Your task to perform on an android device: turn off notifications in google photos Image 0: 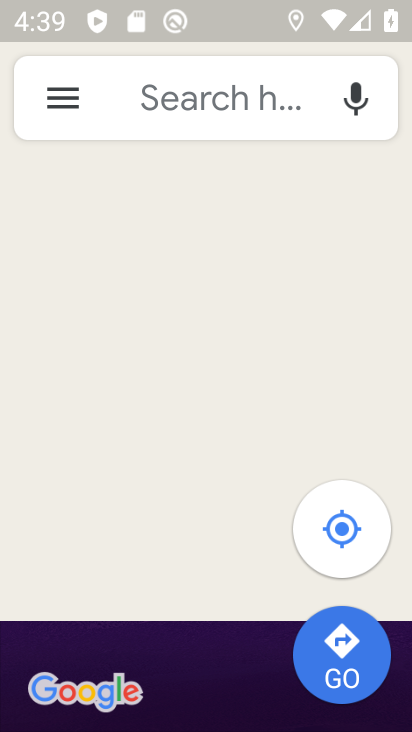
Step 0: drag from (277, 682) to (175, 104)
Your task to perform on an android device: turn off notifications in google photos Image 1: 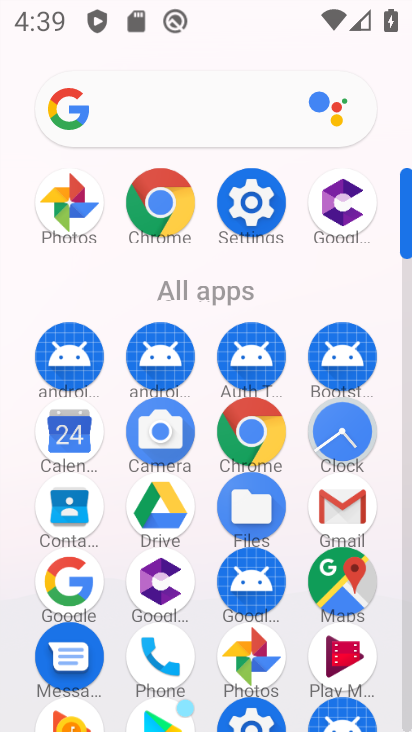
Step 1: click (263, 659)
Your task to perform on an android device: turn off notifications in google photos Image 2: 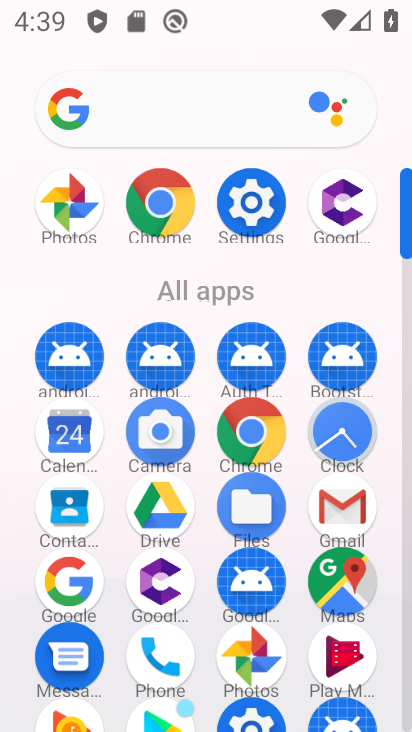
Step 2: click (263, 659)
Your task to perform on an android device: turn off notifications in google photos Image 3: 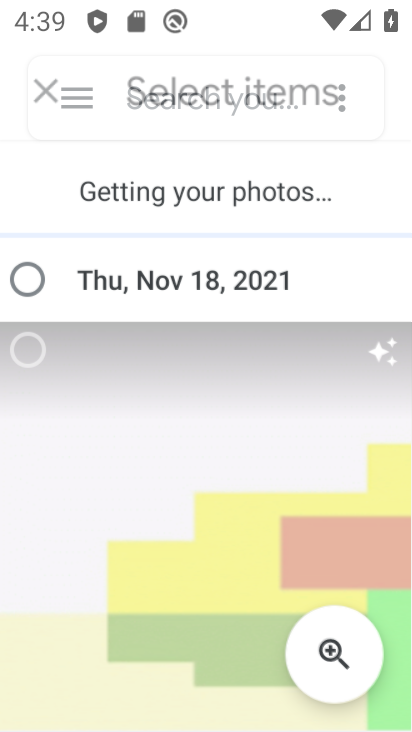
Step 3: click (263, 660)
Your task to perform on an android device: turn off notifications in google photos Image 4: 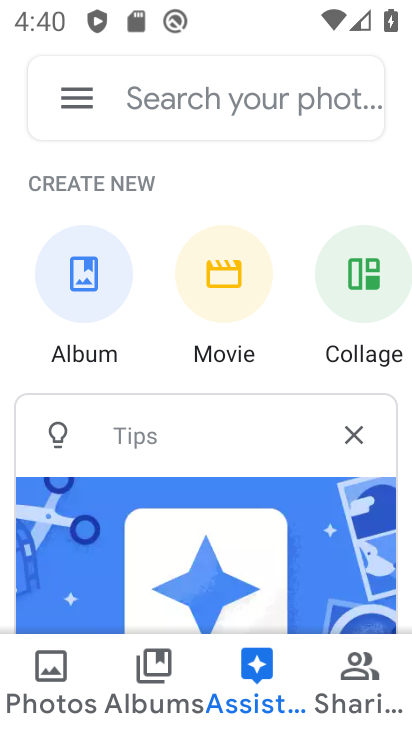
Step 4: drag from (263, 509) to (230, 183)
Your task to perform on an android device: turn off notifications in google photos Image 5: 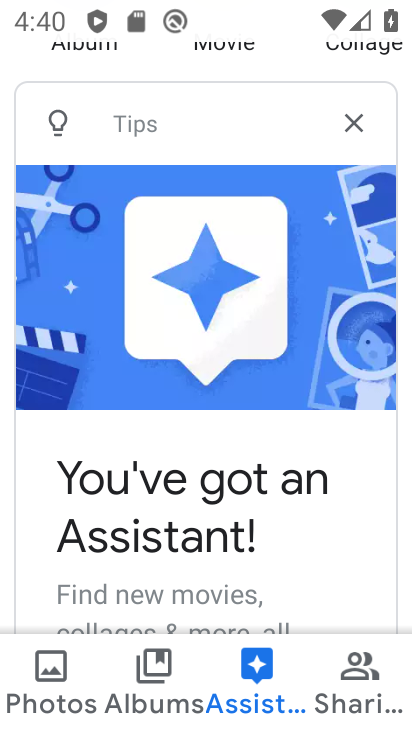
Step 5: drag from (213, 302) to (165, 134)
Your task to perform on an android device: turn off notifications in google photos Image 6: 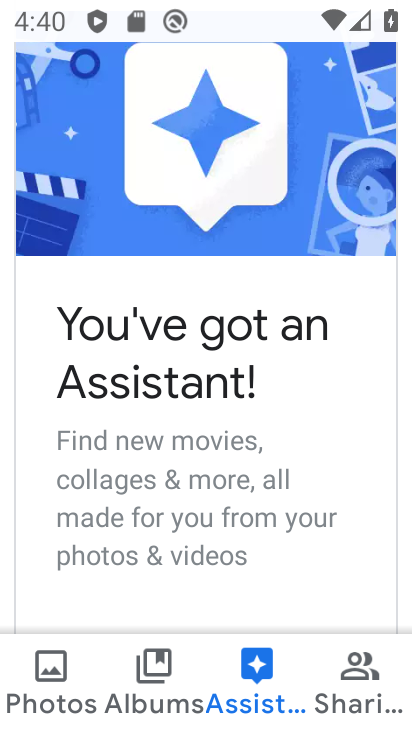
Step 6: drag from (206, 384) to (201, 66)
Your task to perform on an android device: turn off notifications in google photos Image 7: 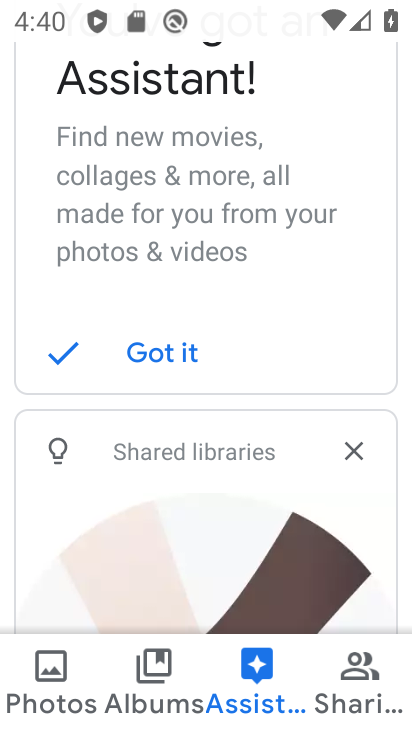
Step 7: drag from (128, 248) to (153, 529)
Your task to perform on an android device: turn off notifications in google photos Image 8: 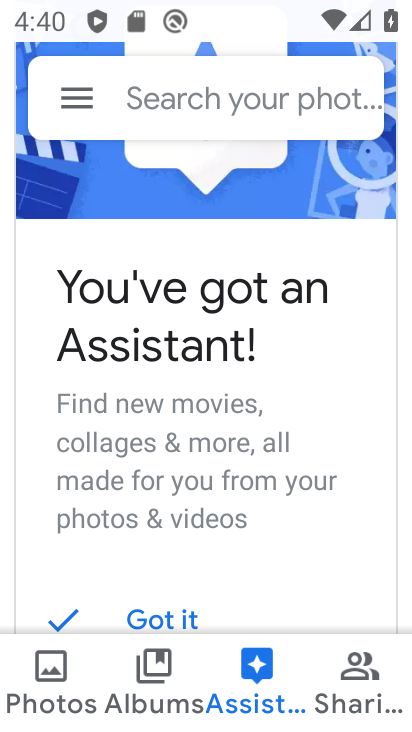
Step 8: click (184, 496)
Your task to perform on an android device: turn off notifications in google photos Image 9: 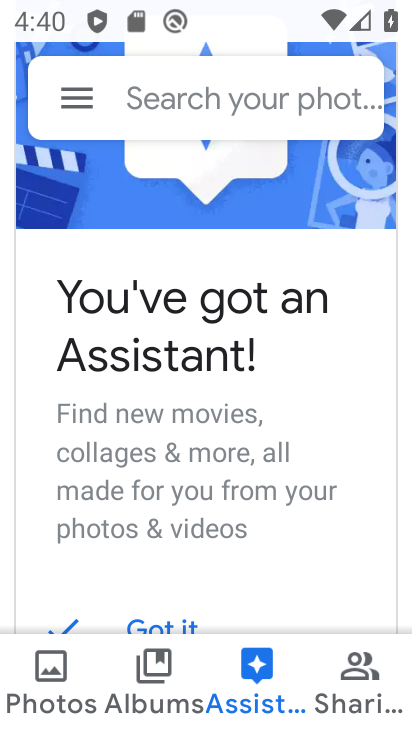
Step 9: drag from (198, 302) to (182, 567)
Your task to perform on an android device: turn off notifications in google photos Image 10: 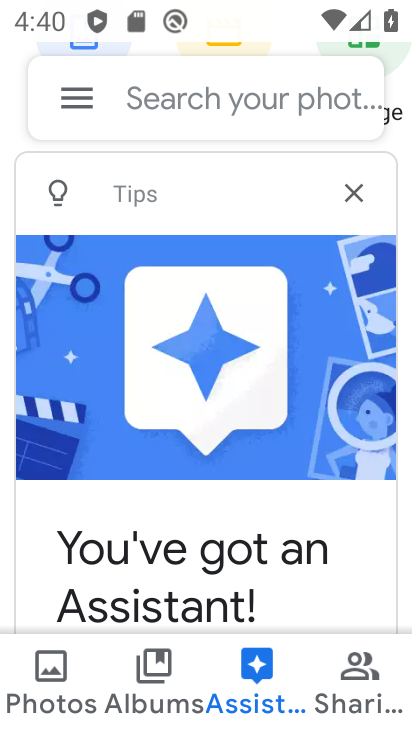
Step 10: drag from (226, 545) to (211, 294)
Your task to perform on an android device: turn off notifications in google photos Image 11: 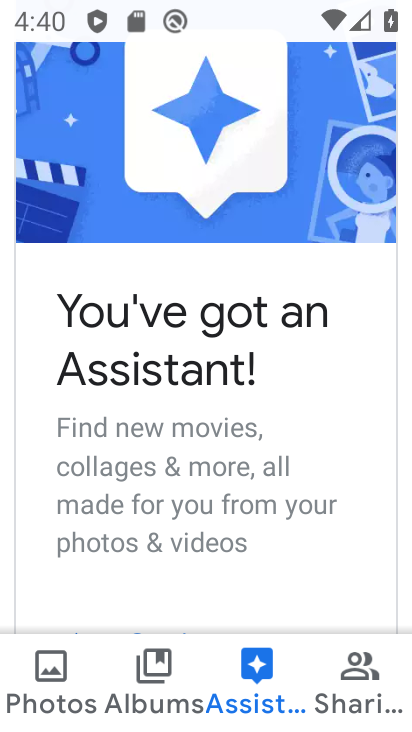
Step 11: drag from (189, 502) to (158, 208)
Your task to perform on an android device: turn off notifications in google photos Image 12: 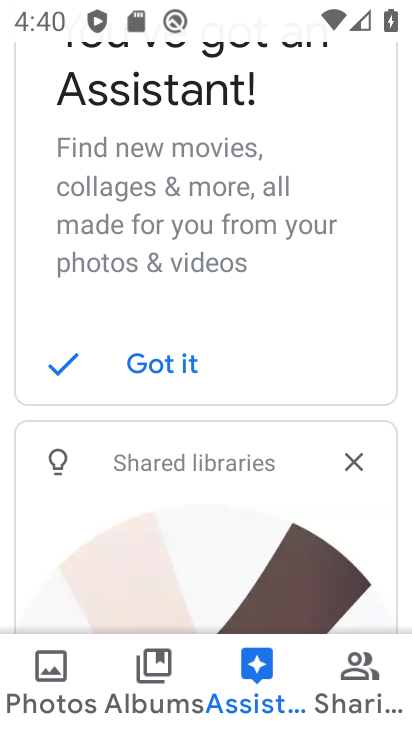
Step 12: drag from (199, 481) to (216, 194)
Your task to perform on an android device: turn off notifications in google photos Image 13: 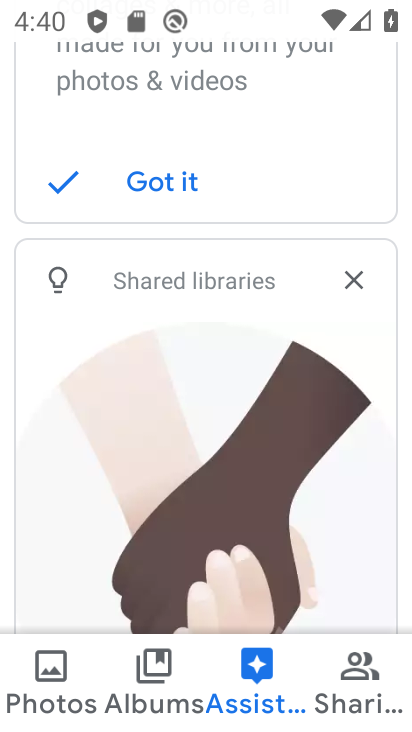
Step 13: drag from (209, 408) to (229, 168)
Your task to perform on an android device: turn off notifications in google photos Image 14: 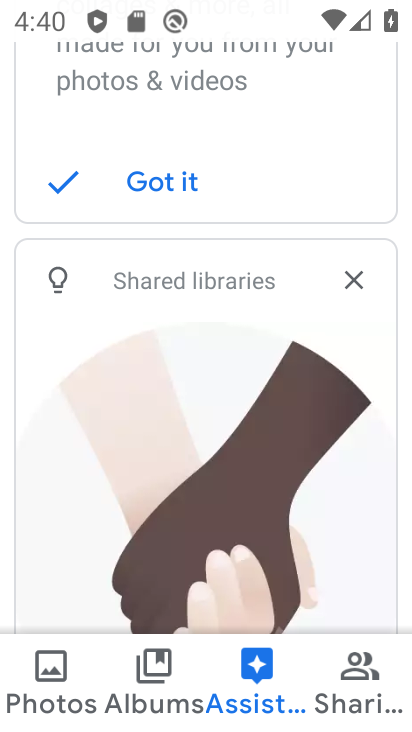
Step 14: click (185, 149)
Your task to perform on an android device: turn off notifications in google photos Image 15: 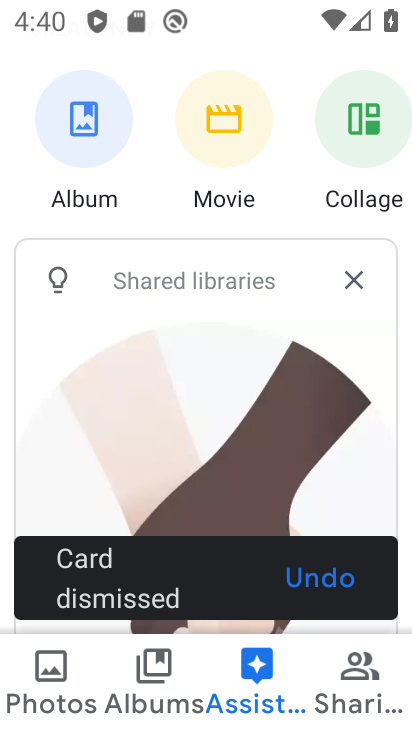
Step 15: drag from (148, 168) to (228, 483)
Your task to perform on an android device: turn off notifications in google photos Image 16: 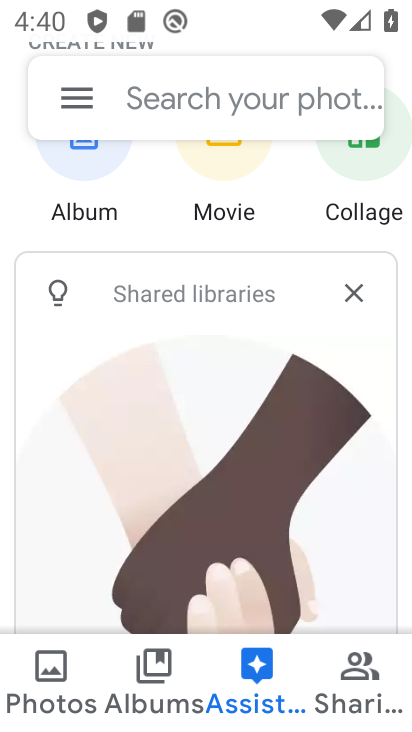
Step 16: drag from (70, 101) to (101, 213)
Your task to perform on an android device: turn off notifications in google photos Image 17: 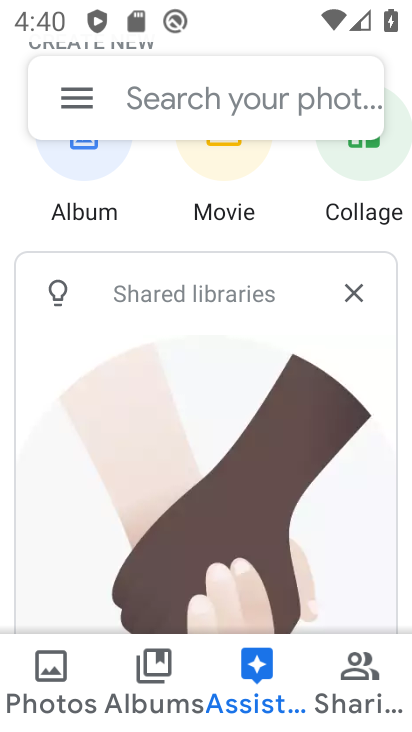
Step 17: click (73, 99)
Your task to perform on an android device: turn off notifications in google photos Image 18: 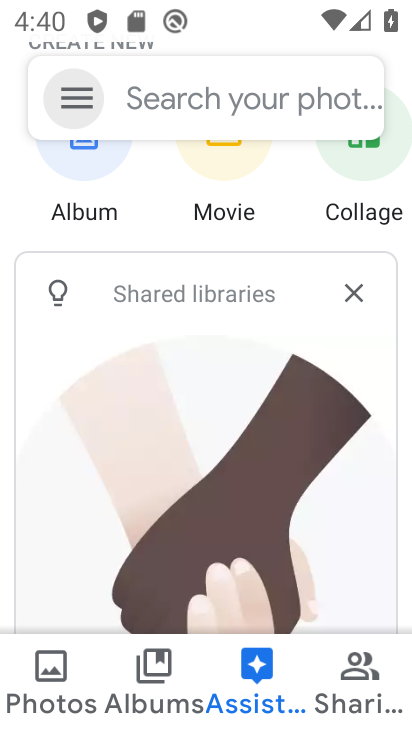
Step 18: click (73, 99)
Your task to perform on an android device: turn off notifications in google photos Image 19: 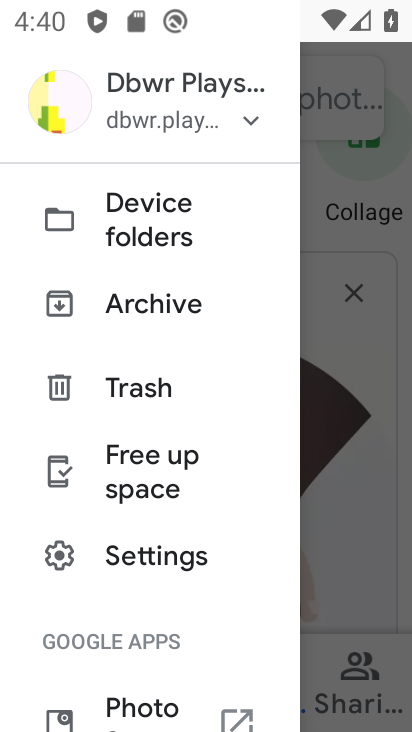
Step 19: click (78, 101)
Your task to perform on an android device: turn off notifications in google photos Image 20: 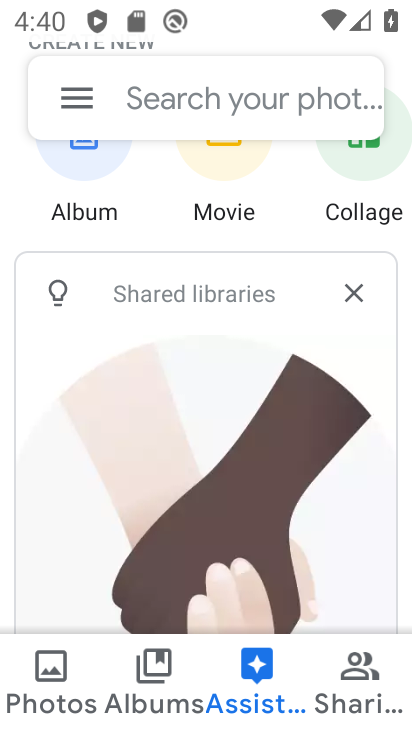
Step 20: click (65, 90)
Your task to perform on an android device: turn off notifications in google photos Image 21: 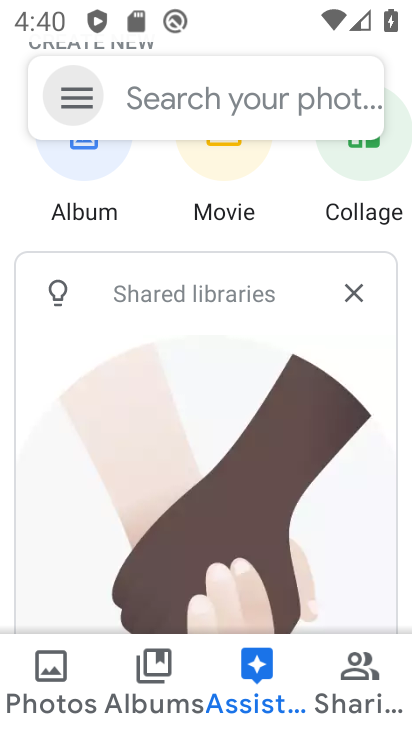
Step 21: drag from (65, 90) to (147, 550)
Your task to perform on an android device: turn off notifications in google photos Image 22: 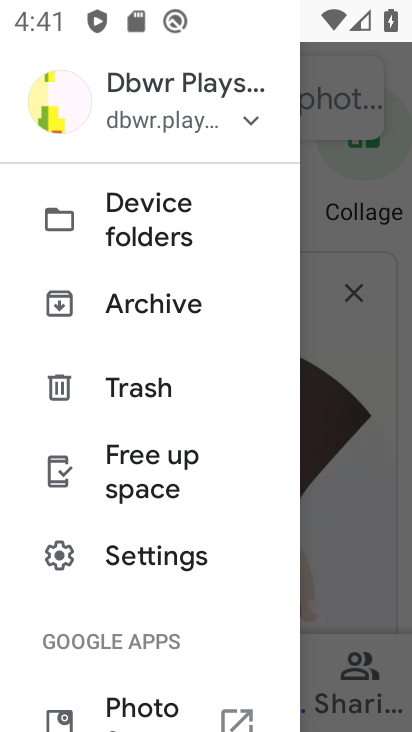
Step 22: click (118, 555)
Your task to perform on an android device: turn off notifications in google photos Image 23: 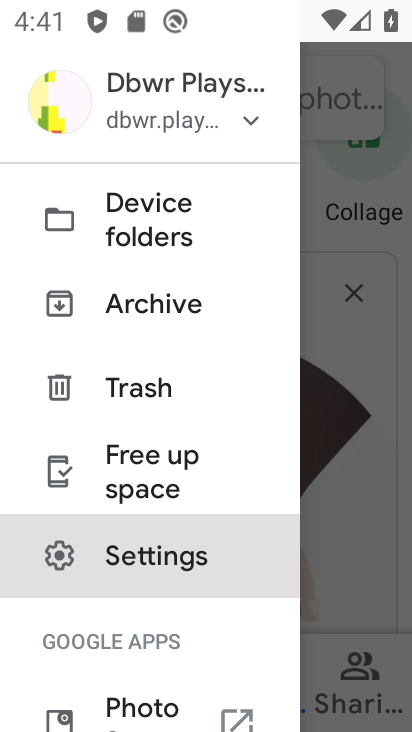
Step 23: click (129, 552)
Your task to perform on an android device: turn off notifications in google photos Image 24: 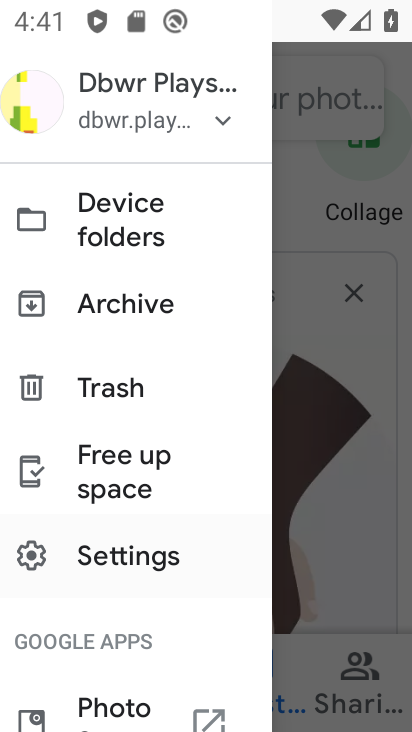
Step 24: click (133, 552)
Your task to perform on an android device: turn off notifications in google photos Image 25: 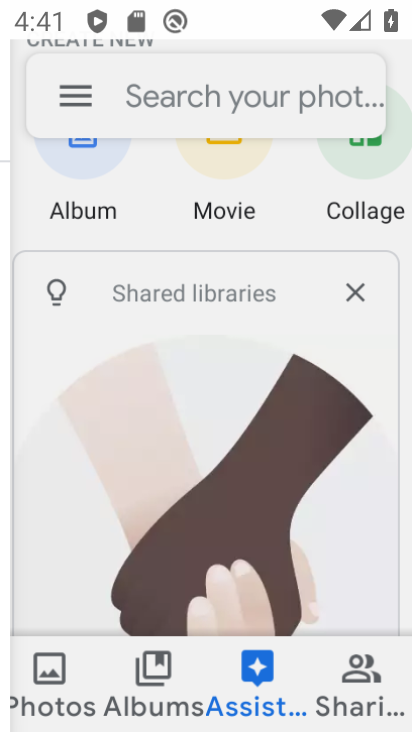
Step 25: click (137, 552)
Your task to perform on an android device: turn off notifications in google photos Image 26: 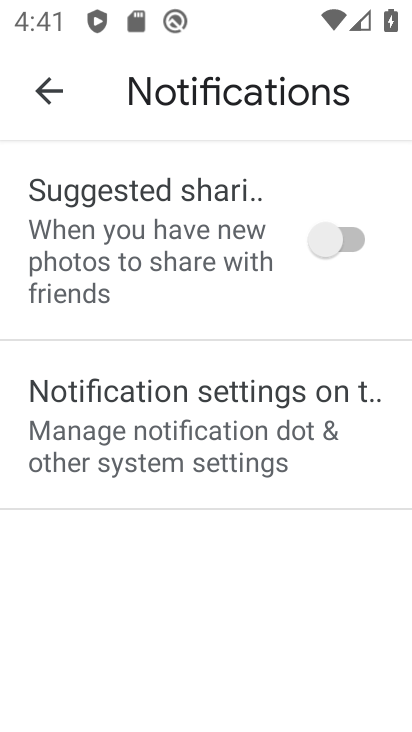
Step 26: click (46, 98)
Your task to perform on an android device: turn off notifications in google photos Image 27: 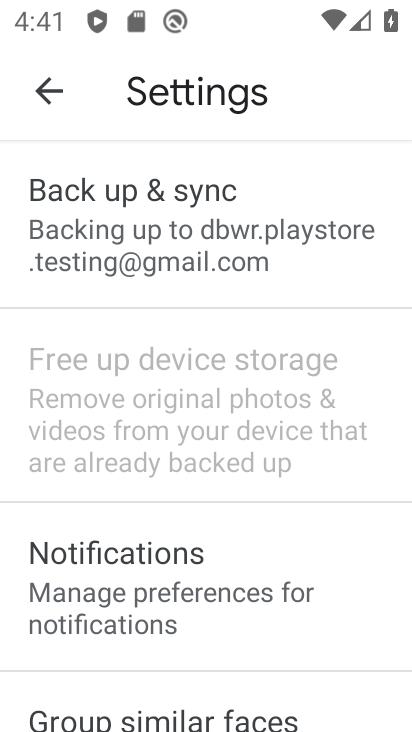
Step 27: drag from (168, 473) to (168, 272)
Your task to perform on an android device: turn off notifications in google photos Image 28: 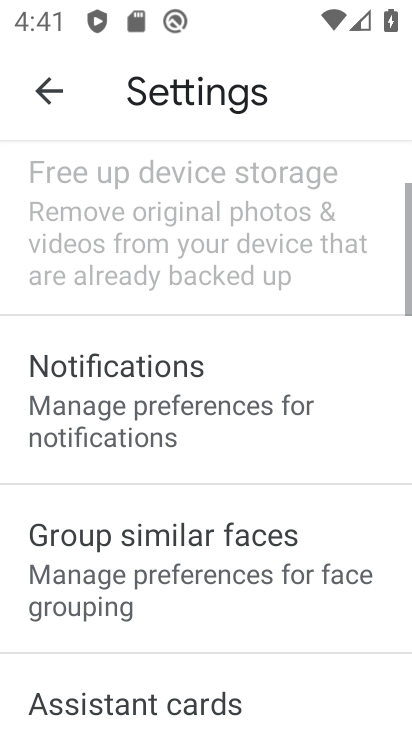
Step 28: drag from (178, 475) to (214, 216)
Your task to perform on an android device: turn off notifications in google photos Image 29: 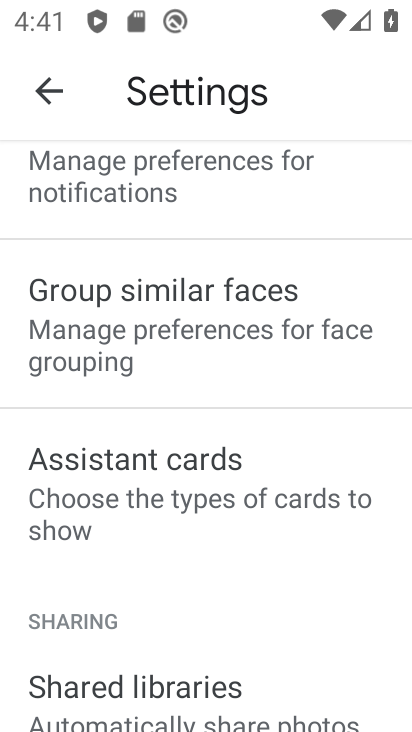
Step 29: drag from (123, 279) to (218, 574)
Your task to perform on an android device: turn off notifications in google photos Image 30: 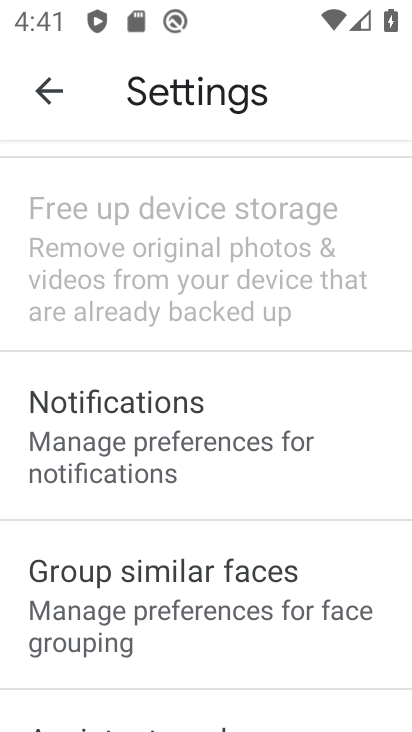
Step 30: click (110, 449)
Your task to perform on an android device: turn off notifications in google photos Image 31: 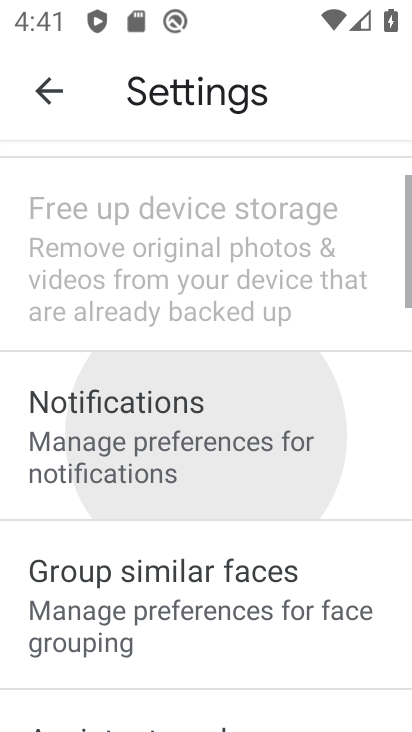
Step 31: click (110, 449)
Your task to perform on an android device: turn off notifications in google photos Image 32: 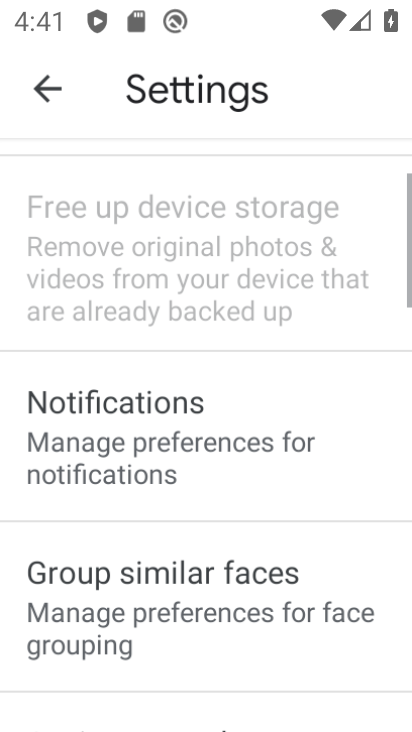
Step 32: click (110, 449)
Your task to perform on an android device: turn off notifications in google photos Image 33: 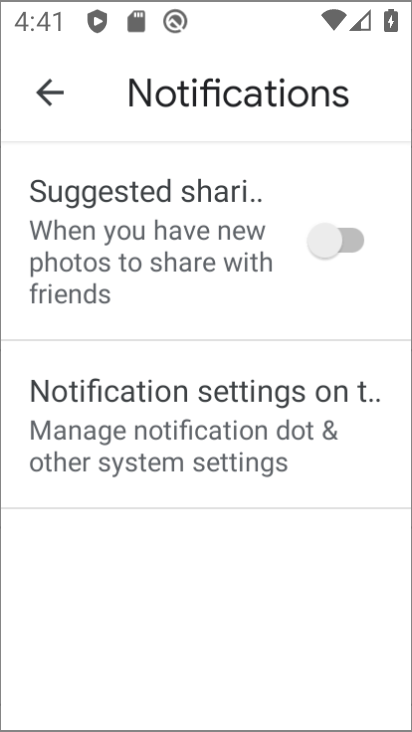
Step 33: click (110, 449)
Your task to perform on an android device: turn off notifications in google photos Image 34: 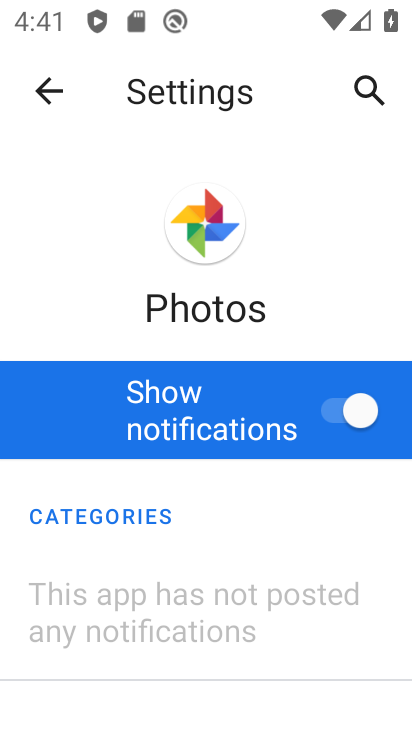
Step 34: click (366, 404)
Your task to perform on an android device: turn off notifications in google photos Image 35: 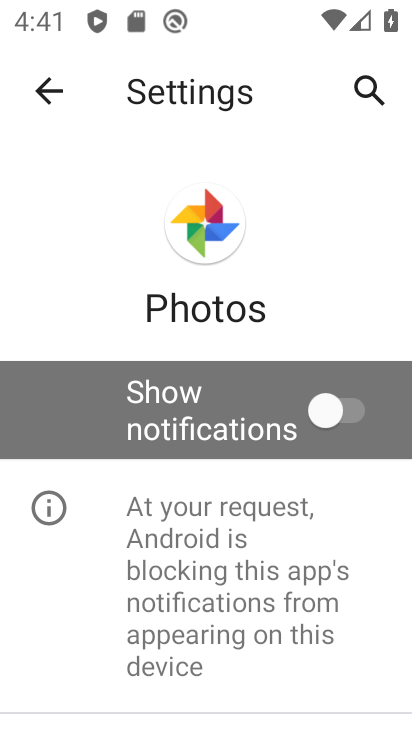
Step 35: task complete